Your task to perform on an android device: change alarm snooze length Image 0: 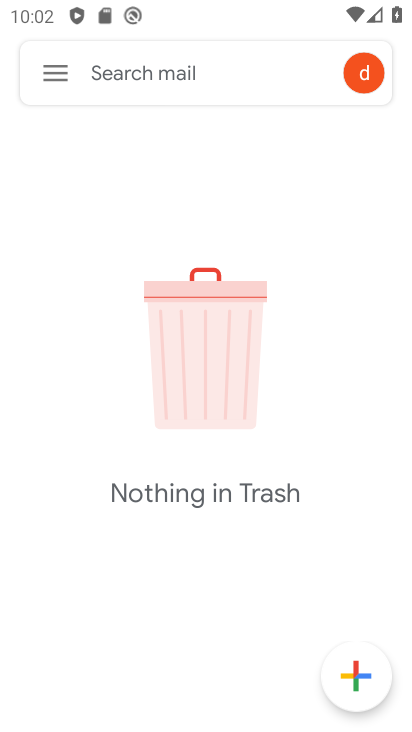
Step 0: press home button
Your task to perform on an android device: change alarm snooze length Image 1: 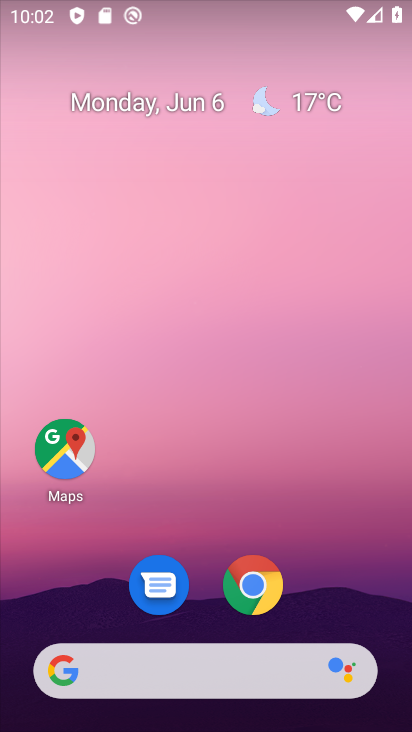
Step 1: drag from (210, 477) to (215, 44)
Your task to perform on an android device: change alarm snooze length Image 2: 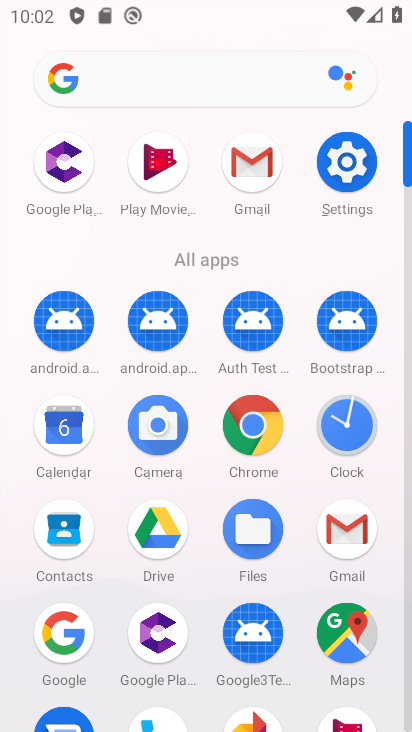
Step 2: click (345, 423)
Your task to perform on an android device: change alarm snooze length Image 3: 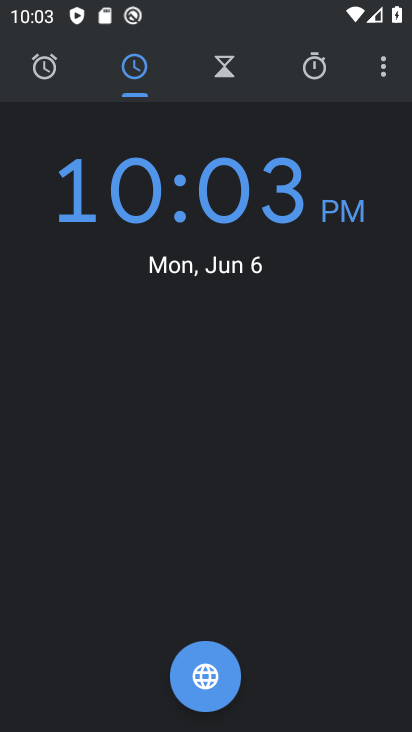
Step 3: click (383, 75)
Your task to perform on an android device: change alarm snooze length Image 4: 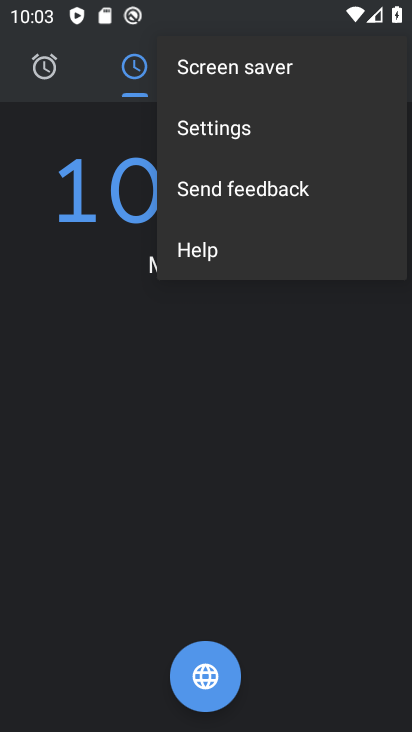
Step 4: click (328, 133)
Your task to perform on an android device: change alarm snooze length Image 5: 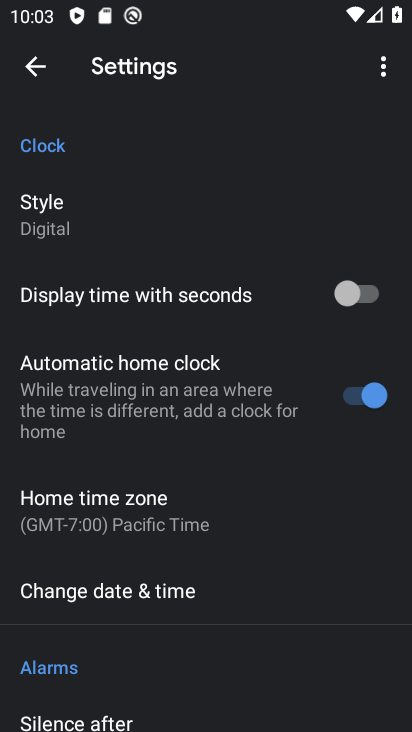
Step 5: drag from (248, 461) to (279, 225)
Your task to perform on an android device: change alarm snooze length Image 6: 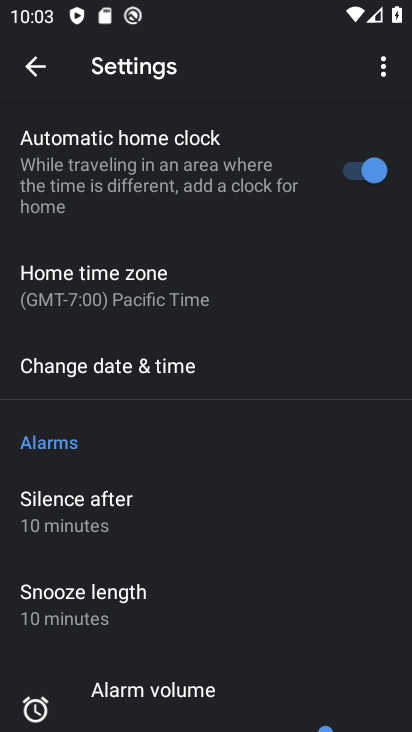
Step 6: click (154, 589)
Your task to perform on an android device: change alarm snooze length Image 7: 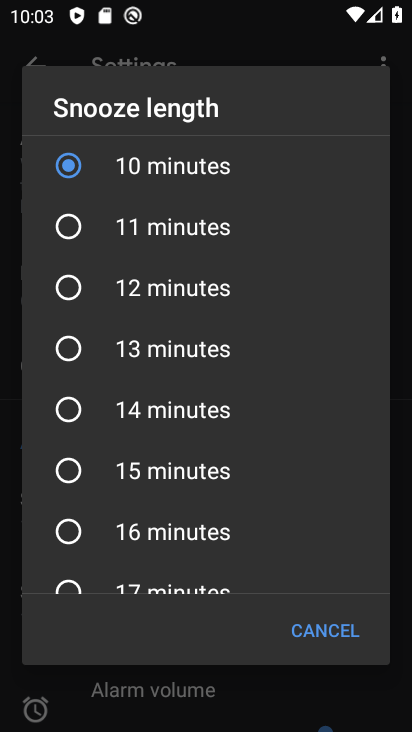
Step 7: click (144, 231)
Your task to perform on an android device: change alarm snooze length Image 8: 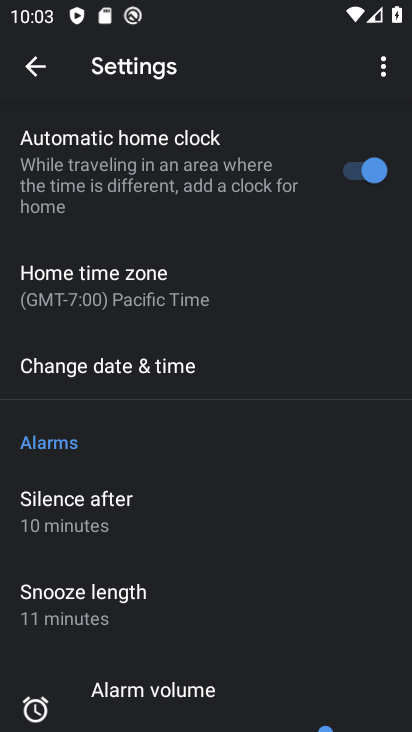
Step 8: task complete